Your task to perform on an android device: Set the phone to "Do not disturb". Image 0: 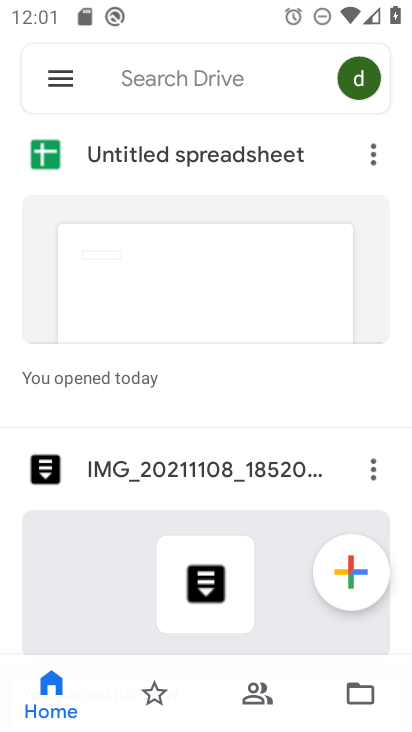
Step 0: press home button
Your task to perform on an android device: Set the phone to "Do not disturb". Image 1: 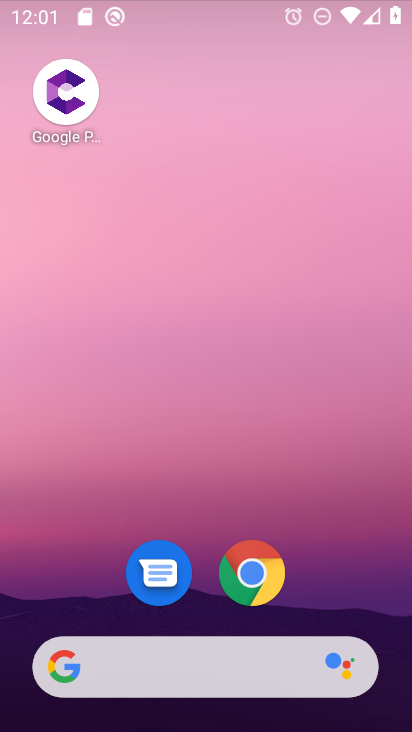
Step 1: drag from (210, 673) to (291, 19)
Your task to perform on an android device: Set the phone to "Do not disturb". Image 2: 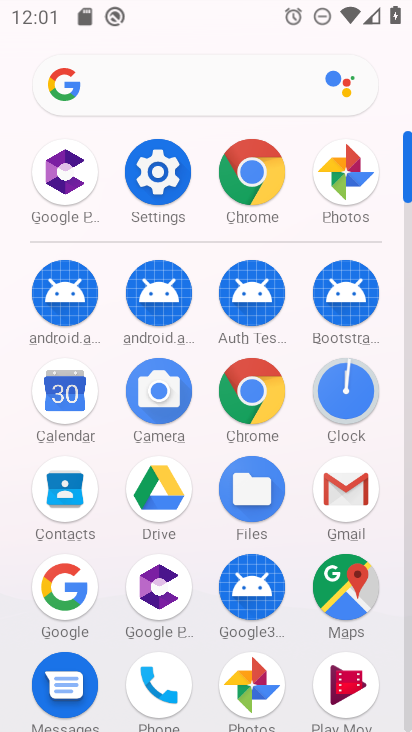
Step 2: click (167, 180)
Your task to perform on an android device: Set the phone to "Do not disturb". Image 3: 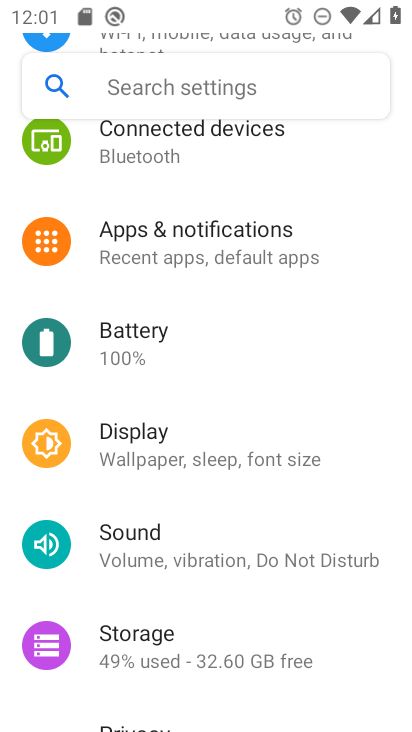
Step 3: click (176, 536)
Your task to perform on an android device: Set the phone to "Do not disturb". Image 4: 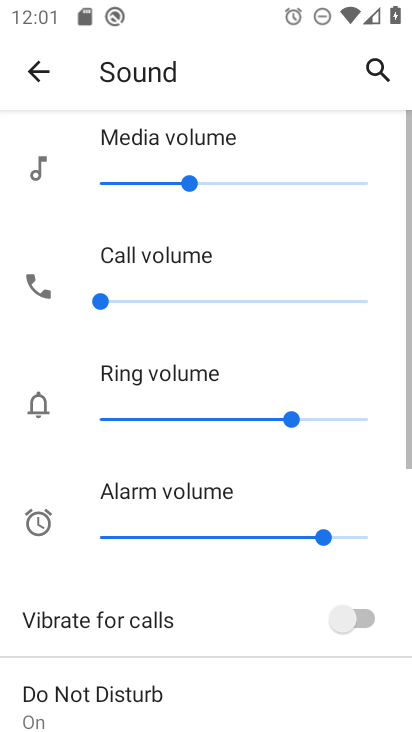
Step 4: drag from (197, 660) to (257, 19)
Your task to perform on an android device: Set the phone to "Do not disturb". Image 5: 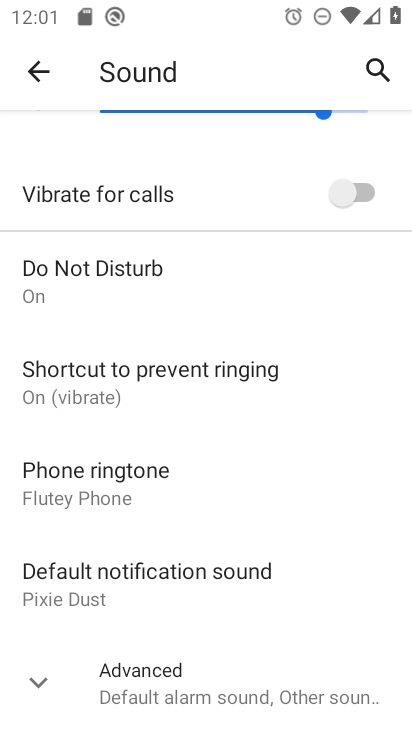
Step 5: click (131, 278)
Your task to perform on an android device: Set the phone to "Do not disturb". Image 6: 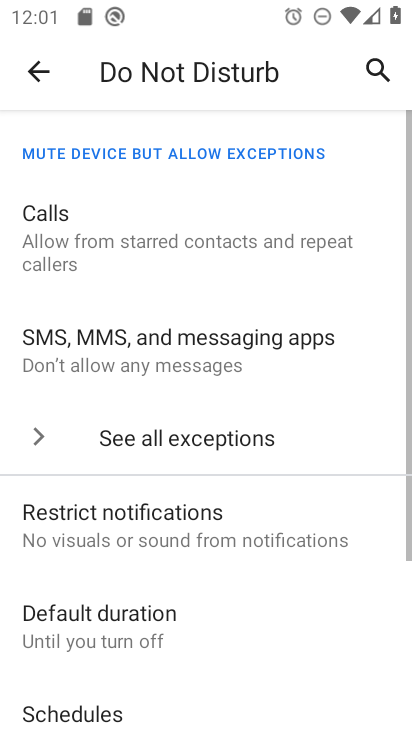
Step 6: task complete